Your task to perform on an android device: Open settings on Google Maps Image 0: 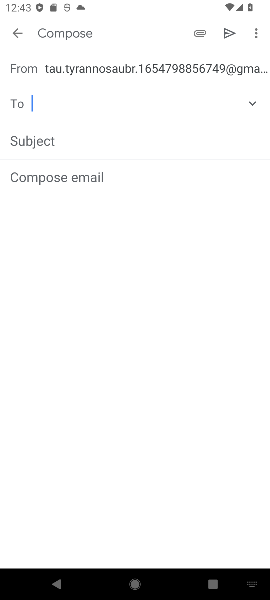
Step 0: press home button
Your task to perform on an android device: Open settings on Google Maps Image 1: 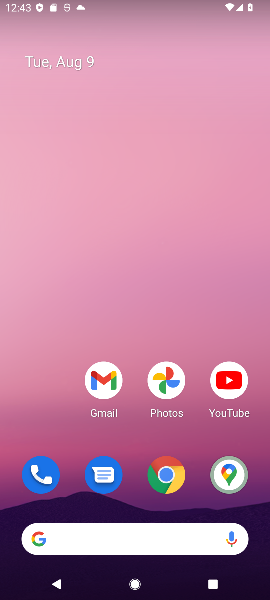
Step 1: click (225, 470)
Your task to perform on an android device: Open settings on Google Maps Image 2: 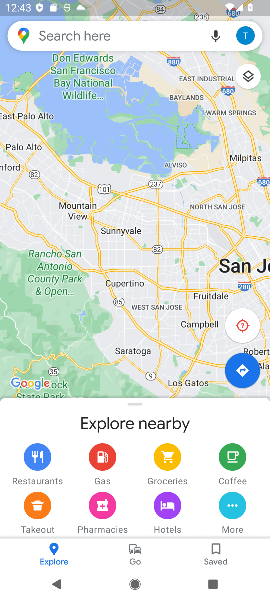
Step 2: click (238, 34)
Your task to perform on an android device: Open settings on Google Maps Image 3: 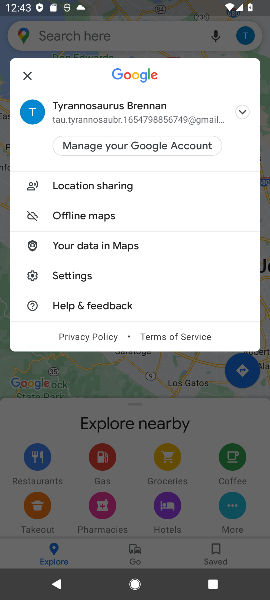
Step 3: click (85, 281)
Your task to perform on an android device: Open settings on Google Maps Image 4: 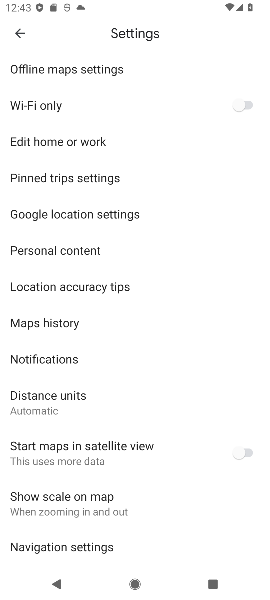
Step 4: task complete